Your task to perform on an android device: Open Google Chrome Image 0: 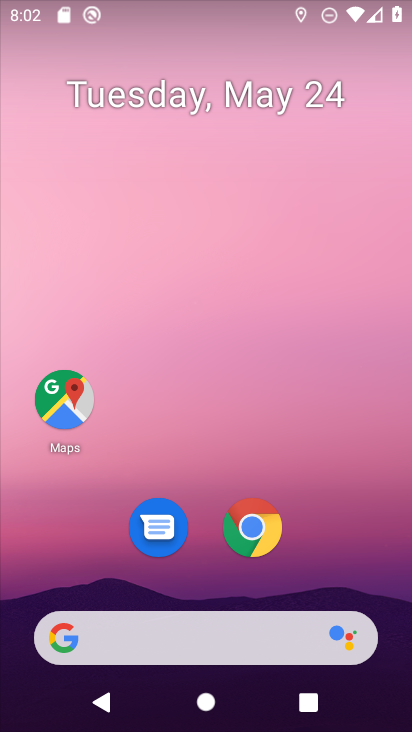
Step 0: click (249, 522)
Your task to perform on an android device: Open Google Chrome Image 1: 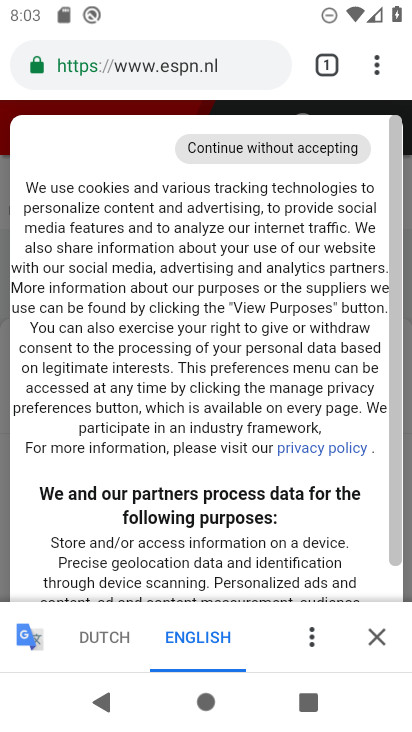
Step 1: task complete